Your task to perform on an android device: Open Google Chrome Image 0: 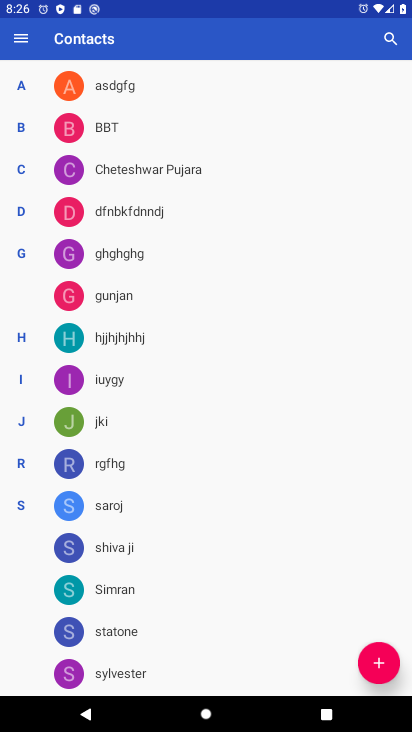
Step 0: press home button
Your task to perform on an android device: Open Google Chrome Image 1: 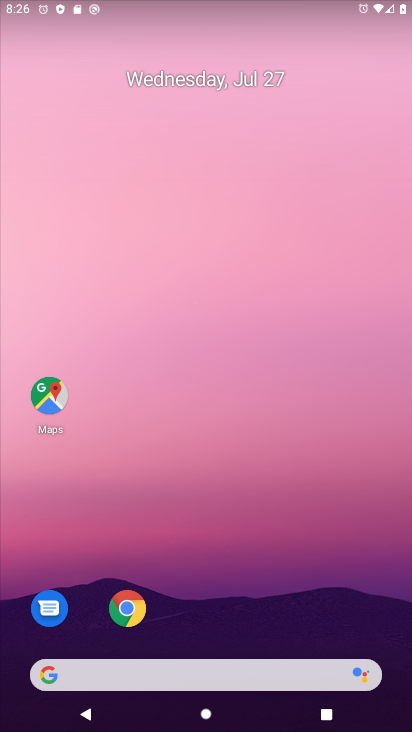
Step 1: drag from (261, 524) to (267, 179)
Your task to perform on an android device: Open Google Chrome Image 2: 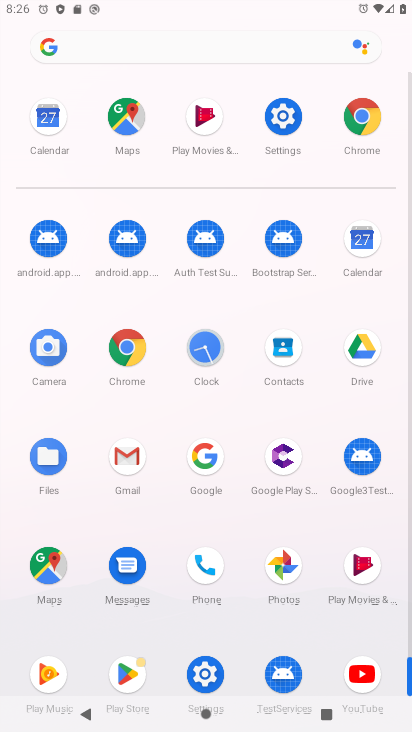
Step 2: click (124, 346)
Your task to perform on an android device: Open Google Chrome Image 3: 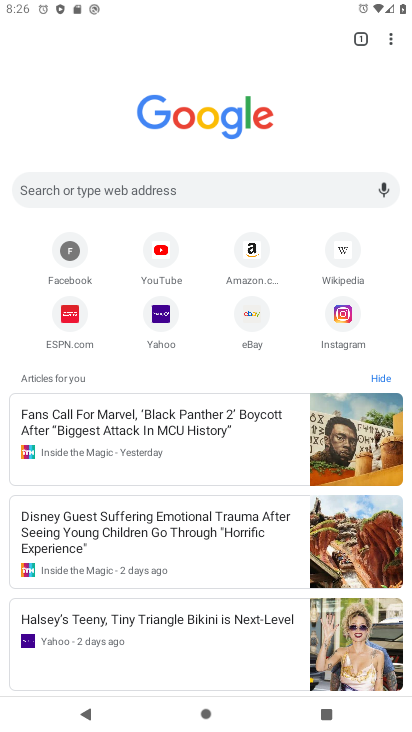
Step 3: task complete